Your task to perform on an android device: allow cookies in the chrome app Image 0: 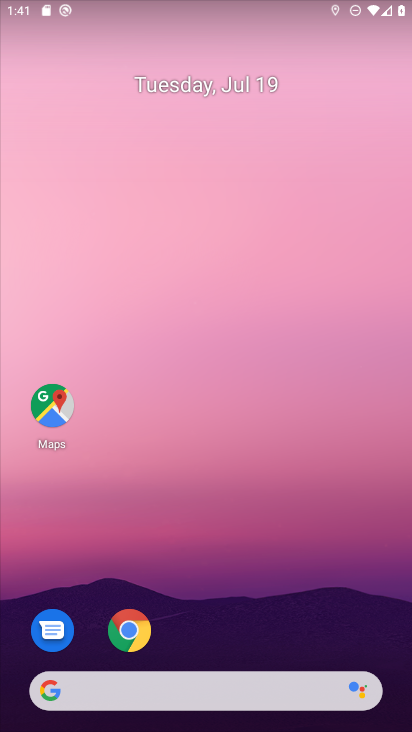
Step 0: press home button
Your task to perform on an android device: allow cookies in the chrome app Image 1: 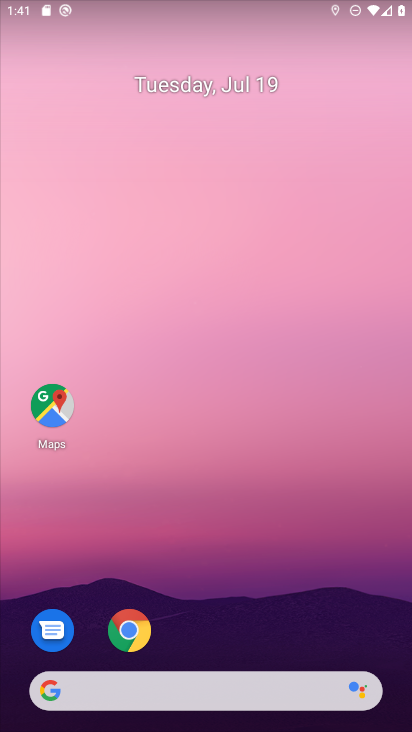
Step 1: click (123, 634)
Your task to perform on an android device: allow cookies in the chrome app Image 2: 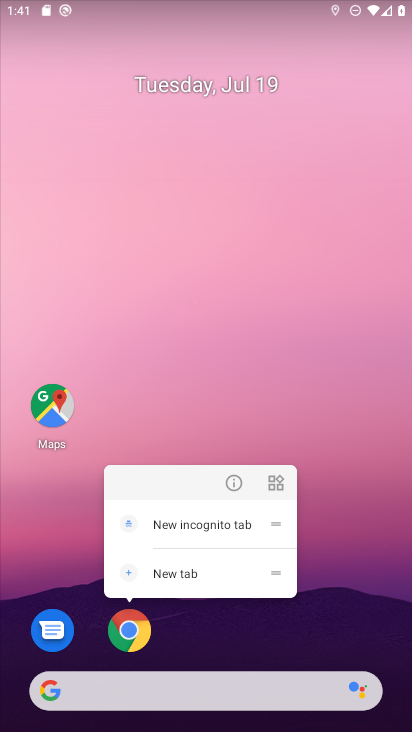
Step 2: click (128, 628)
Your task to perform on an android device: allow cookies in the chrome app Image 3: 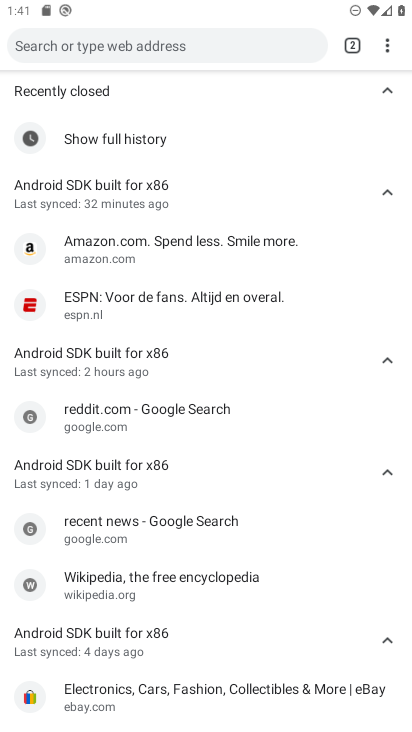
Step 3: drag from (386, 46) to (267, 384)
Your task to perform on an android device: allow cookies in the chrome app Image 4: 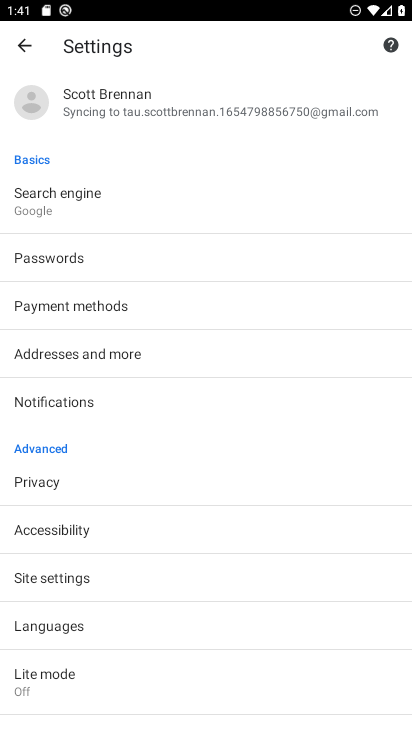
Step 4: click (77, 575)
Your task to perform on an android device: allow cookies in the chrome app Image 5: 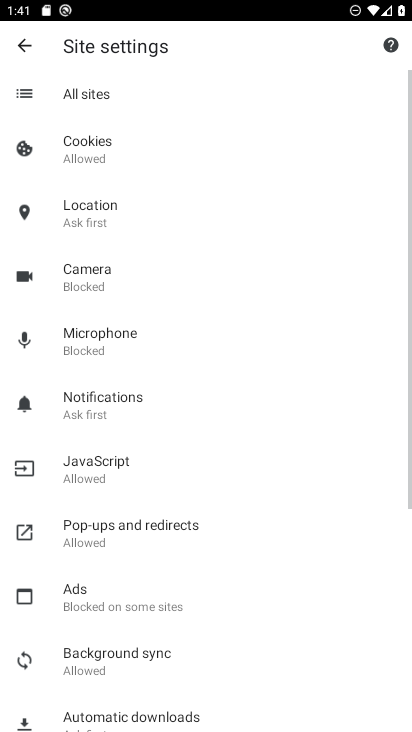
Step 5: click (97, 150)
Your task to perform on an android device: allow cookies in the chrome app Image 6: 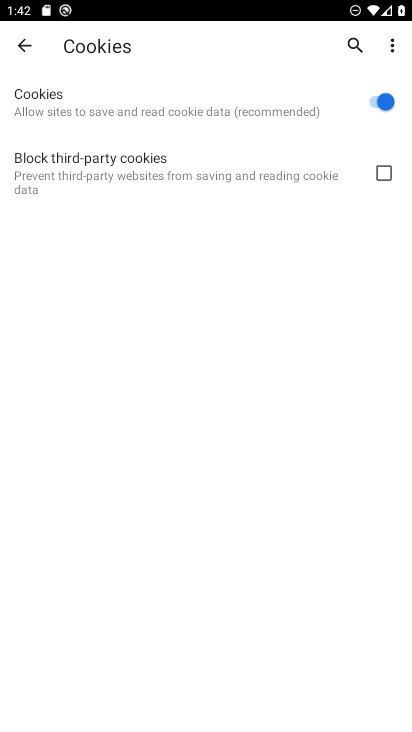
Step 6: task complete